Your task to perform on an android device: see creations saved in the google photos Image 0: 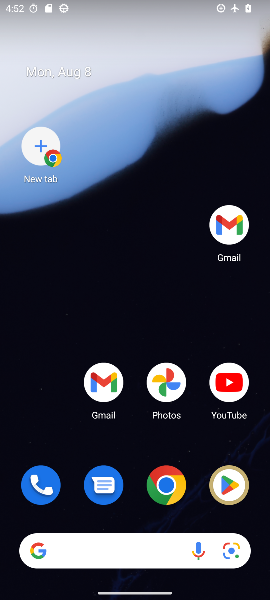
Step 0: drag from (130, 566) to (87, 227)
Your task to perform on an android device: see creations saved in the google photos Image 1: 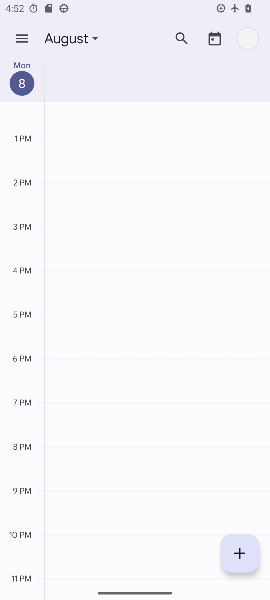
Step 1: press back button
Your task to perform on an android device: see creations saved in the google photos Image 2: 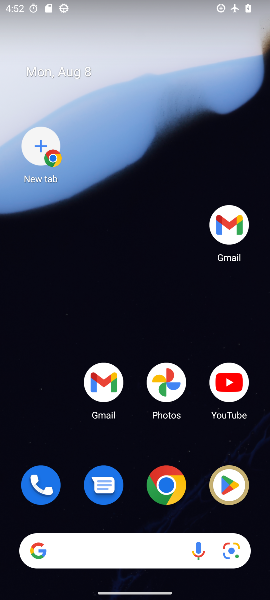
Step 2: drag from (160, 506) to (131, 194)
Your task to perform on an android device: see creations saved in the google photos Image 3: 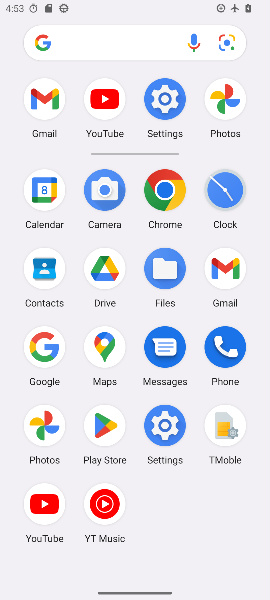
Step 3: click (164, 427)
Your task to perform on an android device: see creations saved in the google photos Image 4: 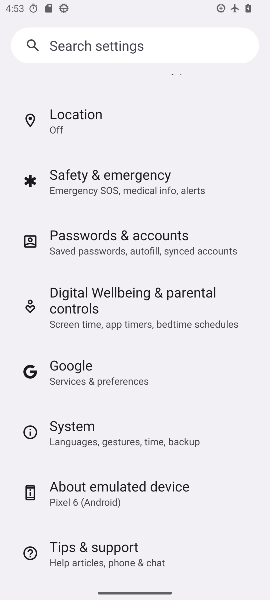
Step 4: drag from (62, 110) to (77, 420)
Your task to perform on an android device: see creations saved in the google photos Image 5: 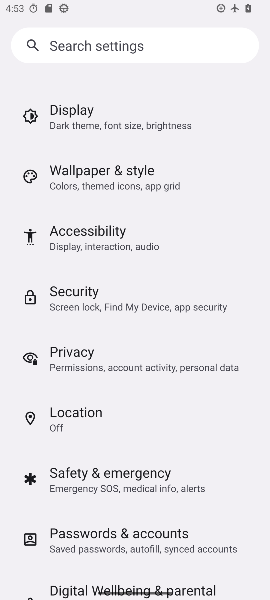
Step 5: drag from (98, 147) to (98, 462)
Your task to perform on an android device: see creations saved in the google photos Image 6: 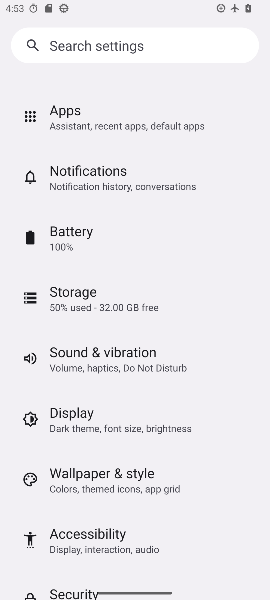
Step 6: drag from (72, 153) to (65, 456)
Your task to perform on an android device: see creations saved in the google photos Image 7: 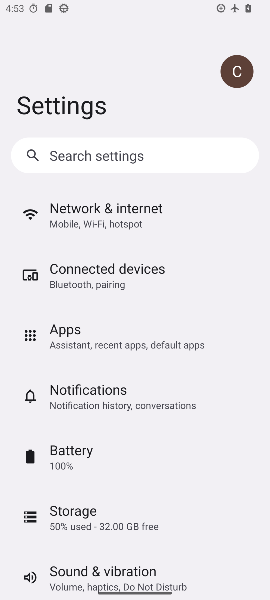
Step 7: click (88, 214)
Your task to perform on an android device: see creations saved in the google photos Image 8: 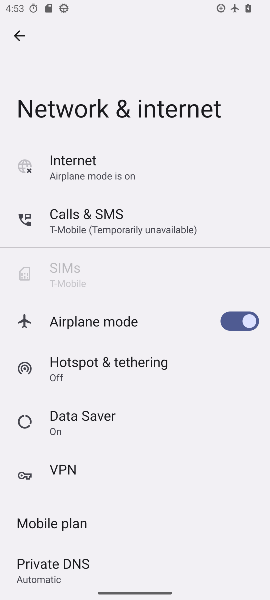
Step 8: click (243, 314)
Your task to perform on an android device: see creations saved in the google photos Image 9: 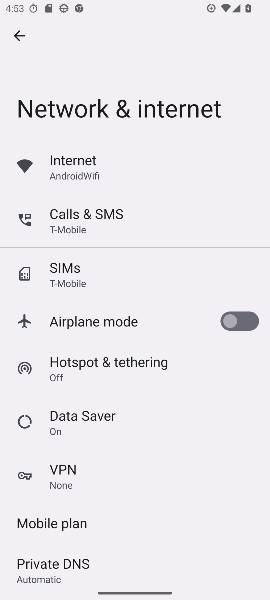
Step 9: press back button
Your task to perform on an android device: see creations saved in the google photos Image 10: 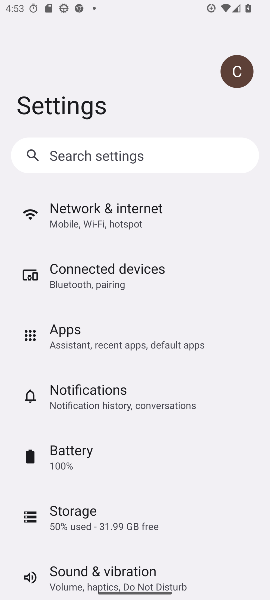
Step 10: press home button
Your task to perform on an android device: see creations saved in the google photos Image 11: 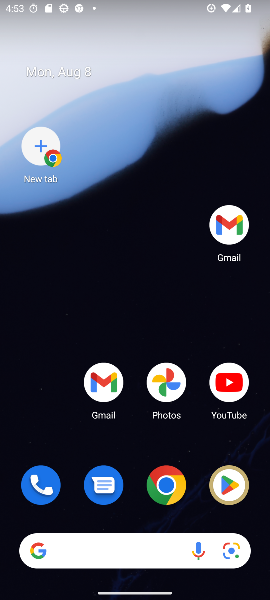
Step 11: drag from (112, 513) to (72, 250)
Your task to perform on an android device: see creations saved in the google photos Image 12: 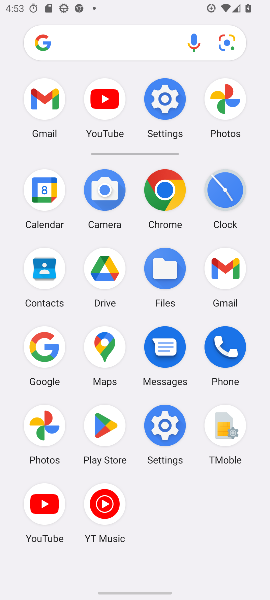
Step 12: drag from (125, 481) to (124, 246)
Your task to perform on an android device: see creations saved in the google photos Image 13: 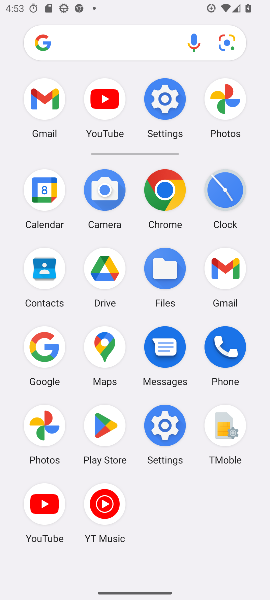
Step 13: click (46, 422)
Your task to perform on an android device: see creations saved in the google photos Image 14: 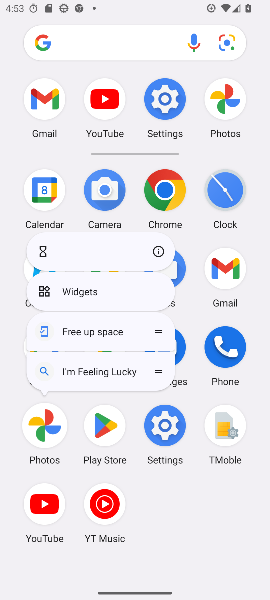
Step 14: click (46, 422)
Your task to perform on an android device: see creations saved in the google photos Image 15: 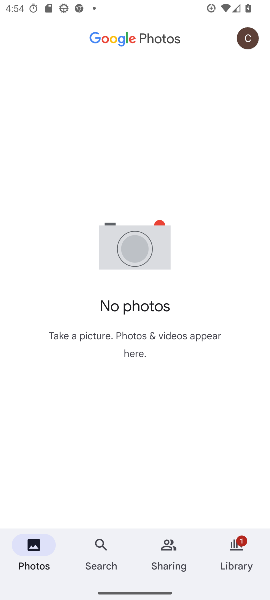
Step 15: press back button
Your task to perform on an android device: see creations saved in the google photos Image 16: 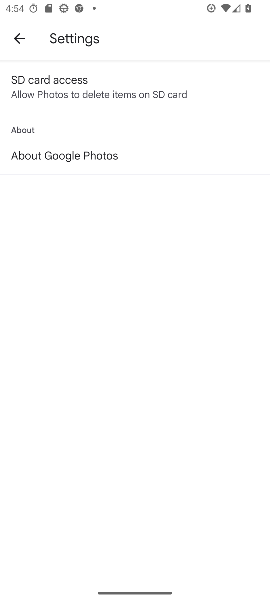
Step 16: click (15, 38)
Your task to perform on an android device: see creations saved in the google photos Image 17: 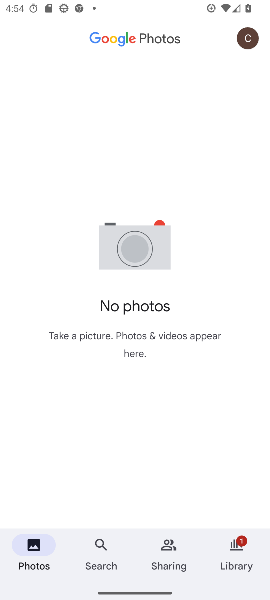
Step 17: press back button
Your task to perform on an android device: see creations saved in the google photos Image 18: 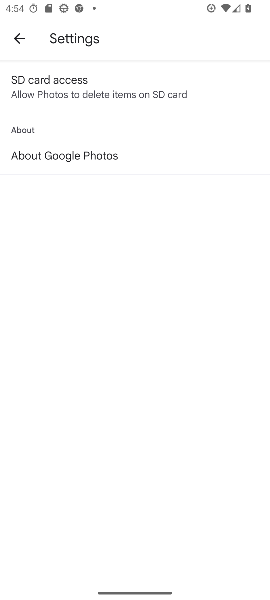
Step 18: click (21, 27)
Your task to perform on an android device: see creations saved in the google photos Image 19: 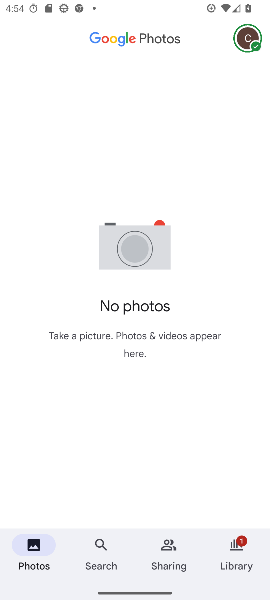
Step 19: press home button
Your task to perform on an android device: see creations saved in the google photos Image 20: 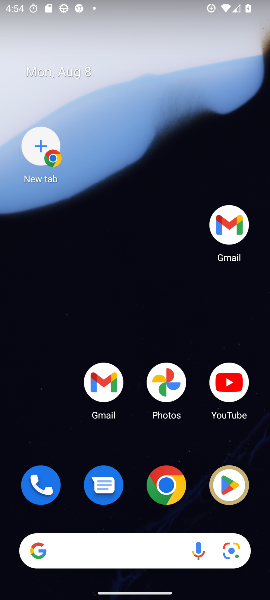
Step 20: drag from (169, 517) to (98, 165)
Your task to perform on an android device: see creations saved in the google photos Image 21: 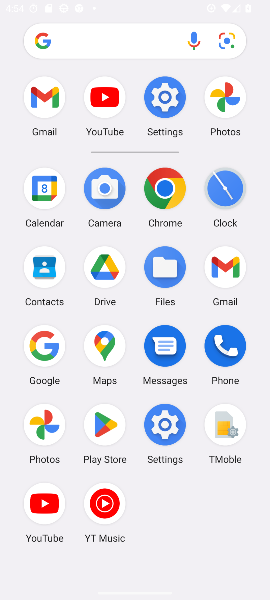
Step 21: drag from (191, 500) to (187, 313)
Your task to perform on an android device: see creations saved in the google photos Image 22: 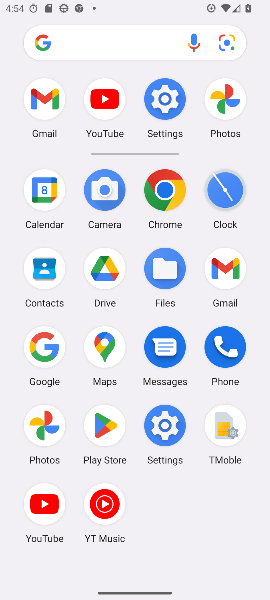
Step 22: click (46, 421)
Your task to perform on an android device: see creations saved in the google photos Image 23: 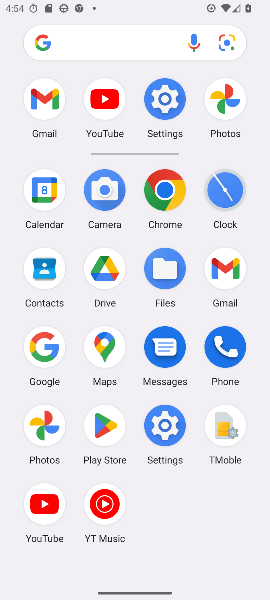
Step 23: click (46, 421)
Your task to perform on an android device: see creations saved in the google photos Image 24: 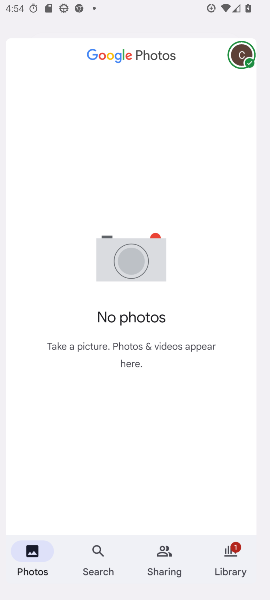
Step 24: click (46, 421)
Your task to perform on an android device: see creations saved in the google photos Image 25: 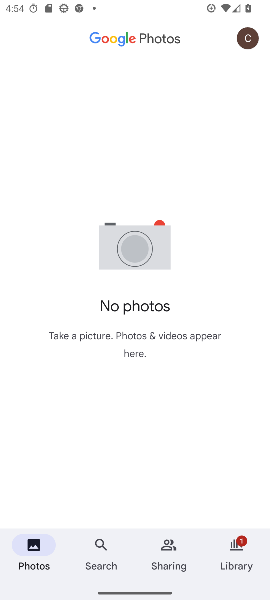
Step 25: task complete